Your task to perform on an android device: Go to Yahoo.com Image 0: 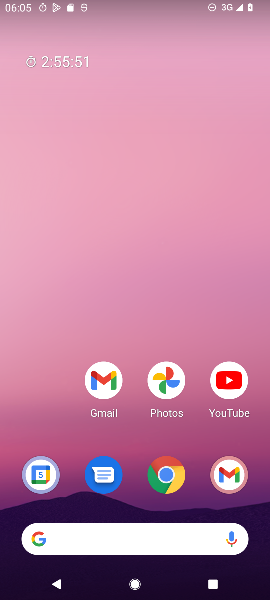
Step 0: press home button
Your task to perform on an android device: Go to Yahoo.com Image 1: 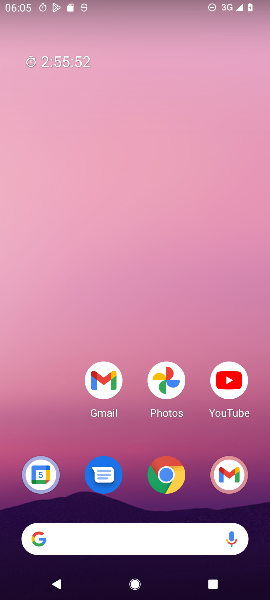
Step 1: drag from (54, 416) to (49, 126)
Your task to perform on an android device: Go to Yahoo.com Image 2: 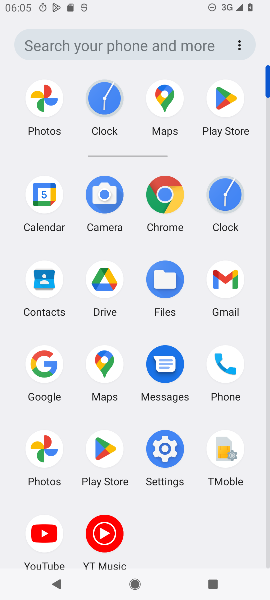
Step 2: click (169, 198)
Your task to perform on an android device: Go to Yahoo.com Image 3: 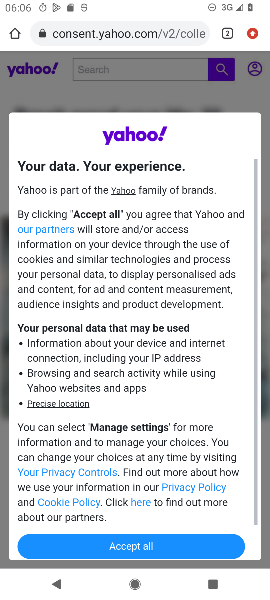
Step 3: task complete